Your task to perform on an android device: all mails in gmail Image 0: 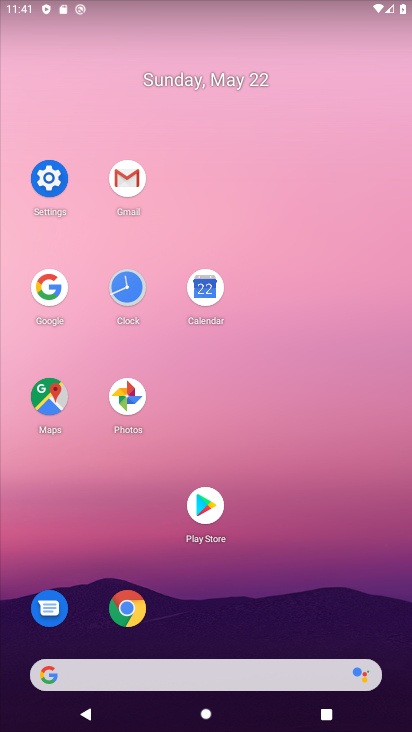
Step 0: click (119, 184)
Your task to perform on an android device: all mails in gmail Image 1: 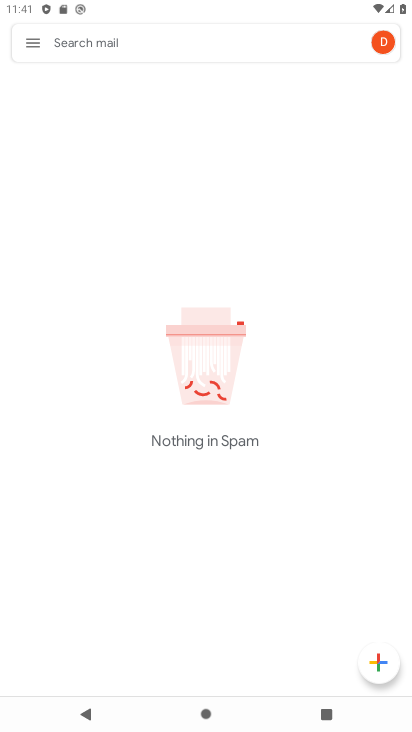
Step 1: click (21, 50)
Your task to perform on an android device: all mails in gmail Image 2: 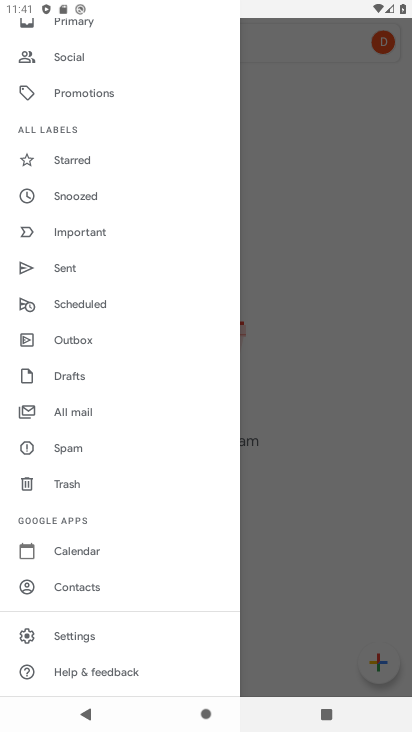
Step 2: click (57, 411)
Your task to perform on an android device: all mails in gmail Image 3: 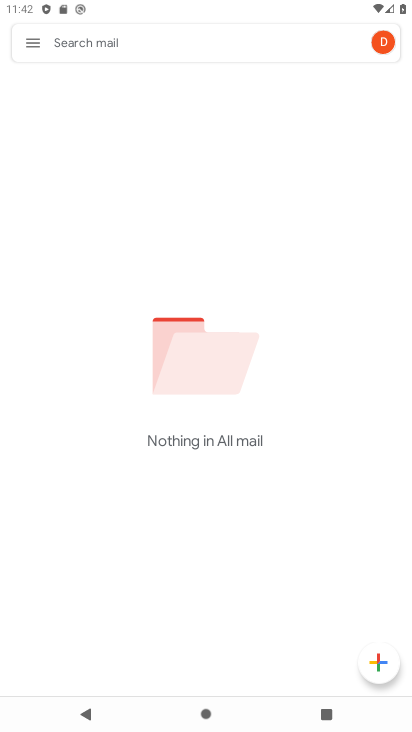
Step 3: task complete